Your task to perform on an android device: Turn on the flashlight Image 0: 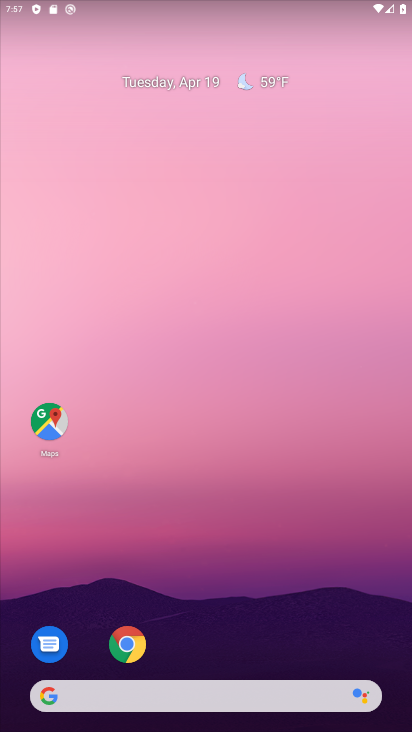
Step 0: drag from (270, 625) to (230, 150)
Your task to perform on an android device: Turn on the flashlight Image 1: 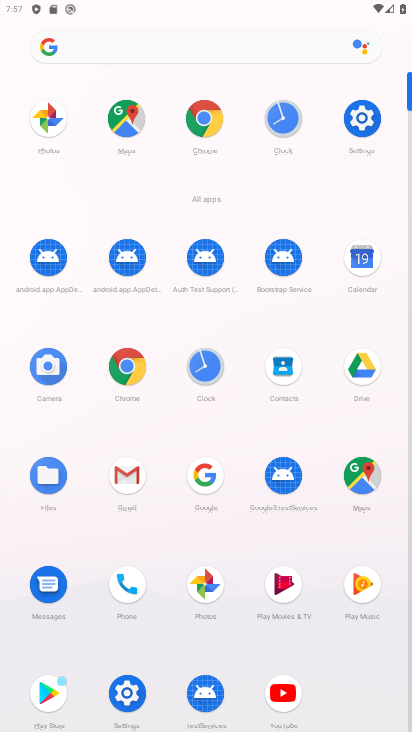
Step 1: click (360, 122)
Your task to perform on an android device: Turn on the flashlight Image 2: 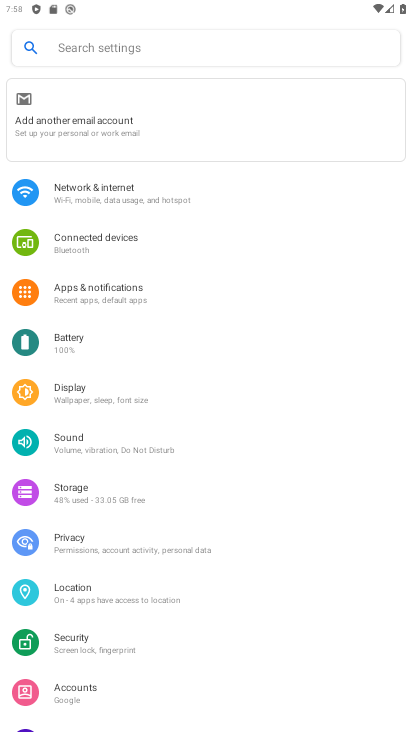
Step 2: click (213, 46)
Your task to perform on an android device: Turn on the flashlight Image 3: 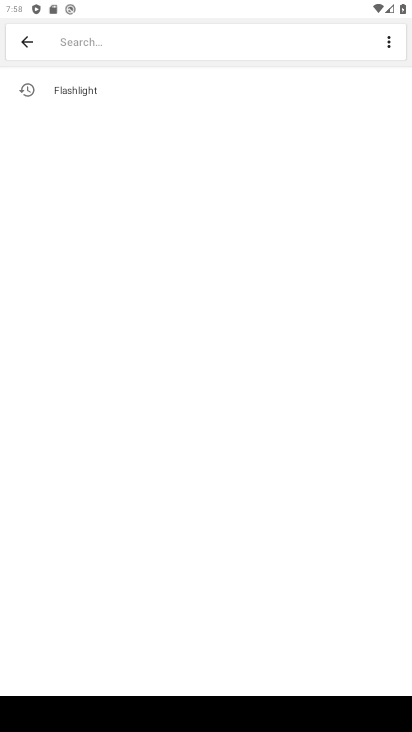
Step 3: type "flashlight"
Your task to perform on an android device: Turn on the flashlight Image 4: 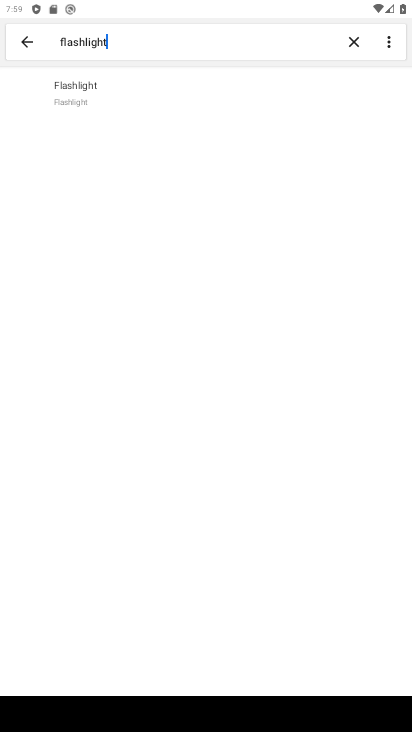
Step 4: click (155, 102)
Your task to perform on an android device: Turn on the flashlight Image 5: 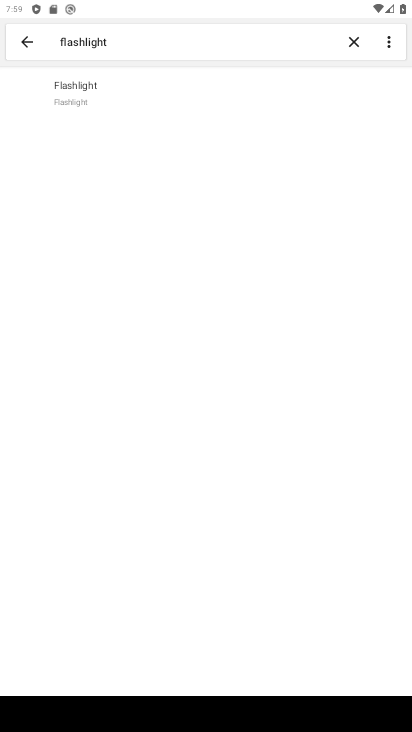
Step 5: task complete